Your task to perform on an android device: turn off priority inbox in the gmail app Image 0: 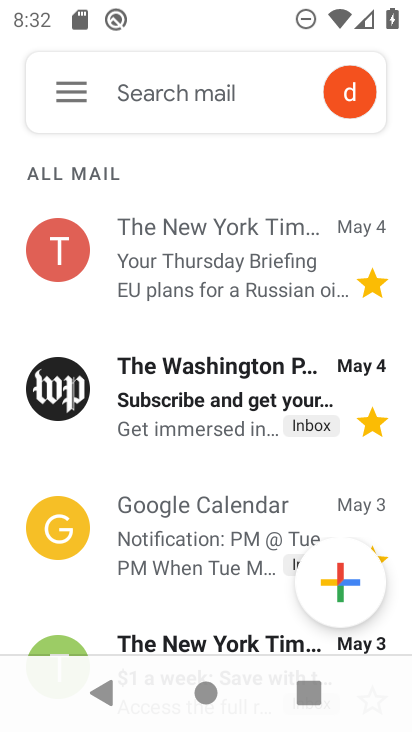
Step 0: click (72, 104)
Your task to perform on an android device: turn off priority inbox in the gmail app Image 1: 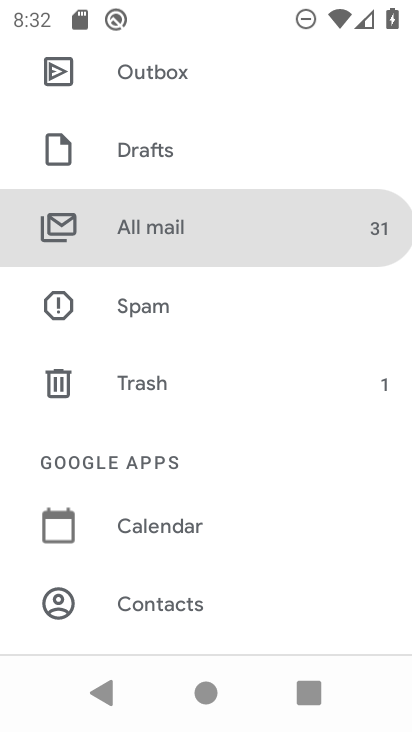
Step 1: drag from (199, 590) to (177, 142)
Your task to perform on an android device: turn off priority inbox in the gmail app Image 2: 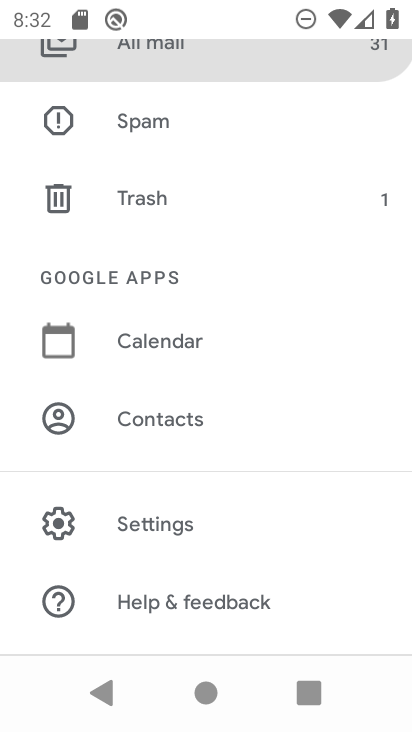
Step 2: click (151, 518)
Your task to perform on an android device: turn off priority inbox in the gmail app Image 3: 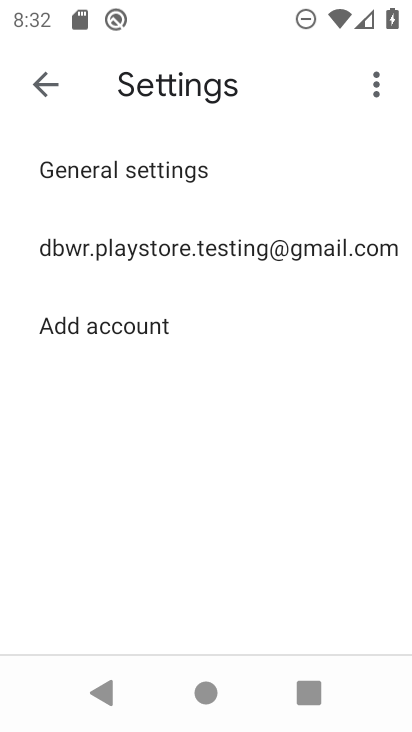
Step 3: click (127, 252)
Your task to perform on an android device: turn off priority inbox in the gmail app Image 4: 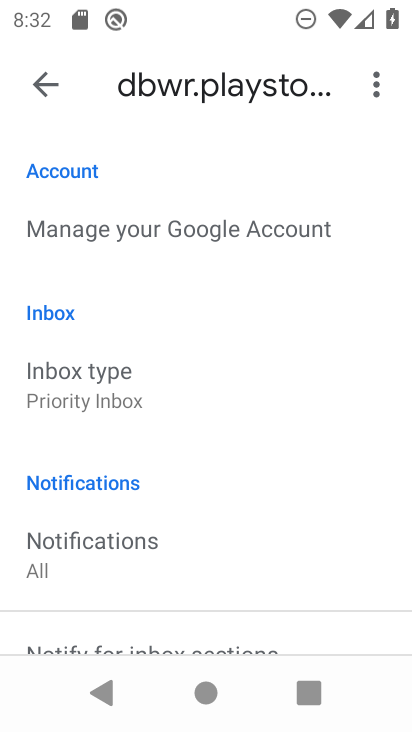
Step 4: click (123, 397)
Your task to perform on an android device: turn off priority inbox in the gmail app Image 5: 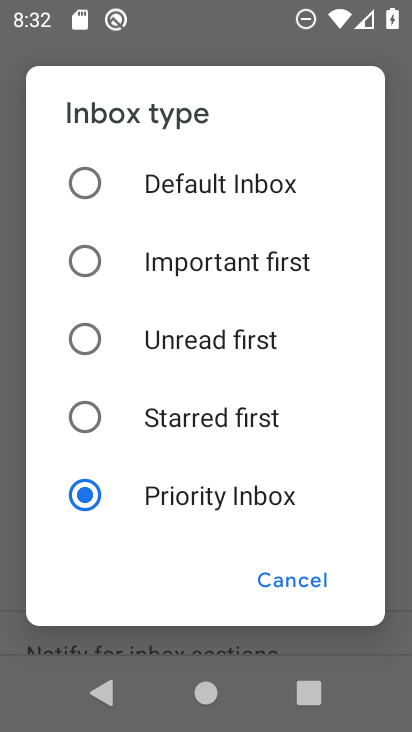
Step 5: click (196, 181)
Your task to perform on an android device: turn off priority inbox in the gmail app Image 6: 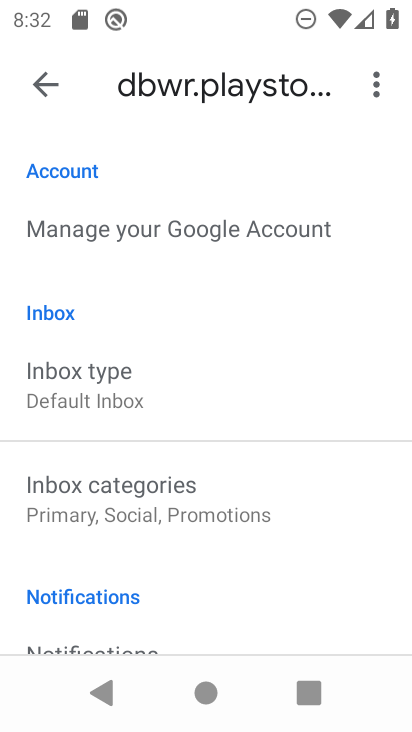
Step 6: task complete